Your task to perform on an android device: toggle improve location accuracy Image 0: 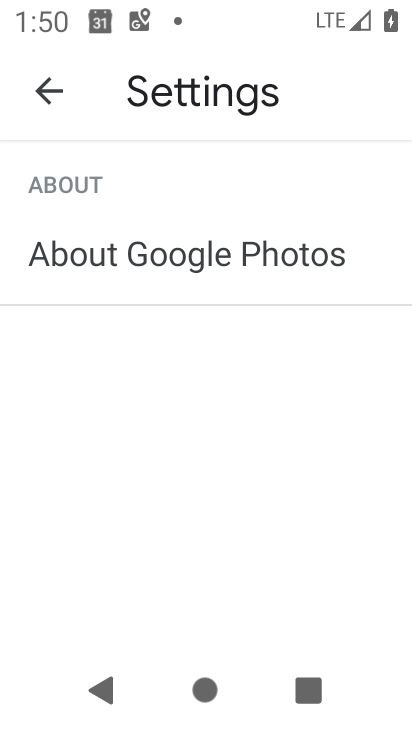
Step 0: press home button
Your task to perform on an android device: toggle improve location accuracy Image 1: 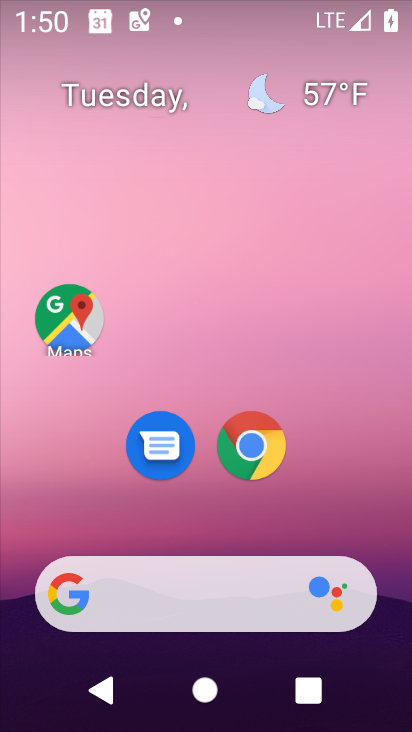
Step 1: drag from (360, 400) to (352, 130)
Your task to perform on an android device: toggle improve location accuracy Image 2: 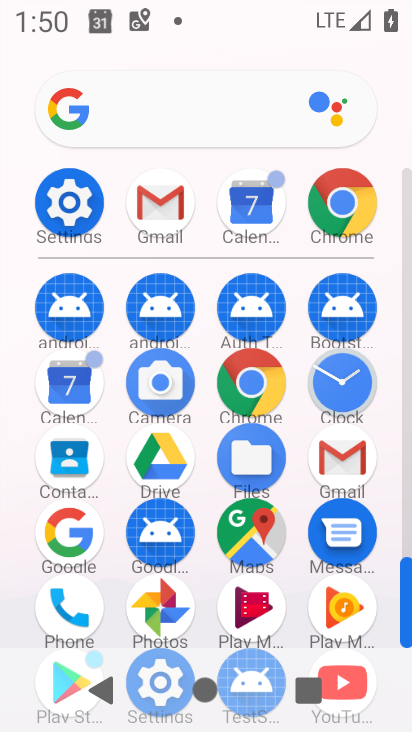
Step 2: click (79, 220)
Your task to perform on an android device: toggle improve location accuracy Image 3: 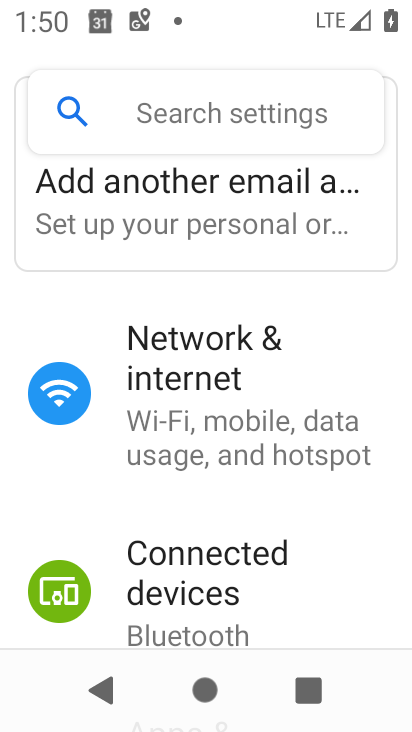
Step 3: drag from (341, 478) to (331, 373)
Your task to perform on an android device: toggle improve location accuracy Image 4: 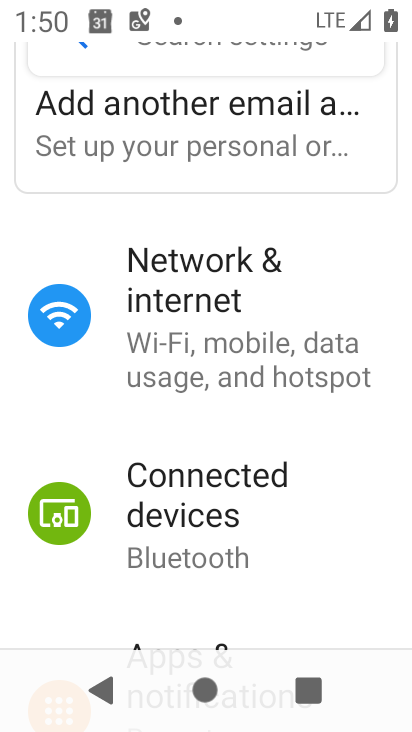
Step 4: drag from (329, 483) to (322, 361)
Your task to perform on an android device: toggle improve location accuracy Image 5: 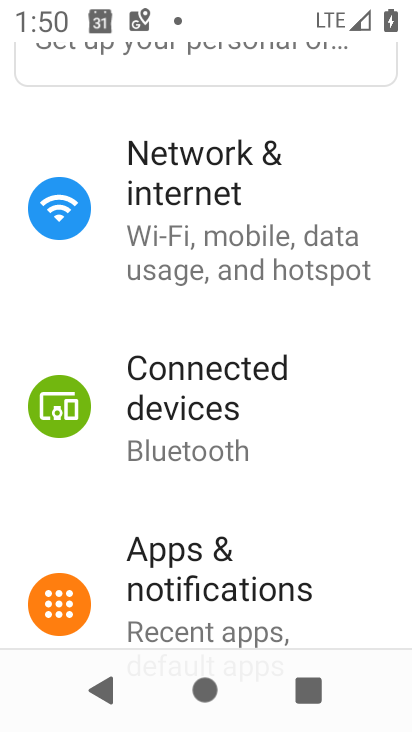
Step 5: drag from (337, 496) to (339, 386)
Your task to perform on an android device: toggle improve location accuracy Image 6: 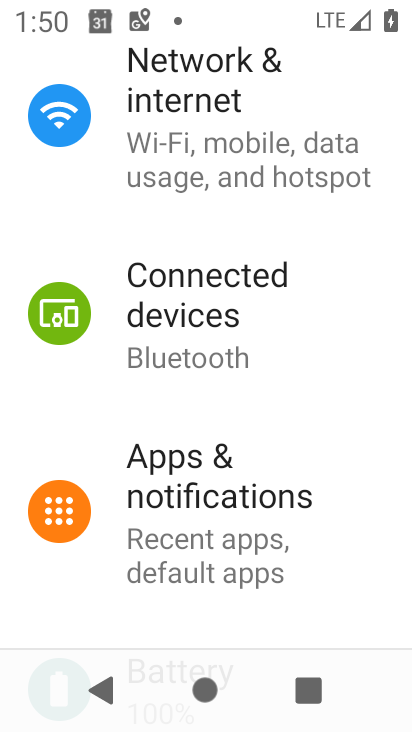
Step 6: drag from (343, 551) to (357, 421)
Your task to perform on an android device: toggle improve location accuracy Image 7: 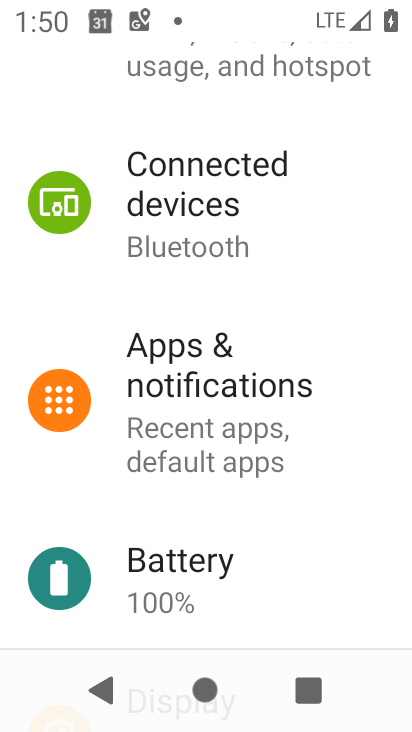
Step 7: drag from (342, 547) to (344, 429)
Your task to perform on an android device: toggle improve location accuracy Image 8: 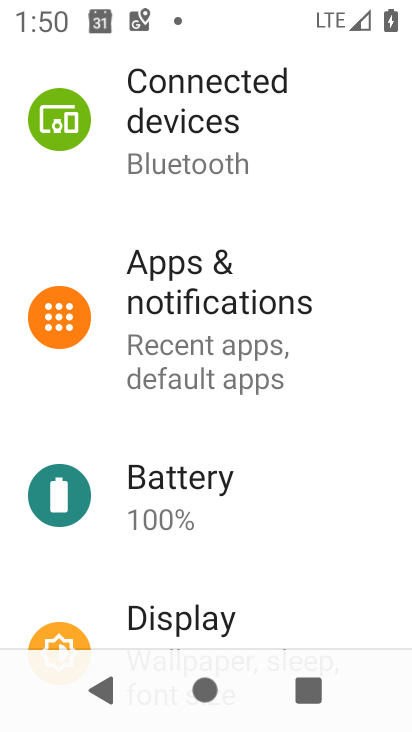
Step 8: drag from (356, 431) to (363, 291)
Your task to perform on an android device: toggle improve location accuracy Image 9: 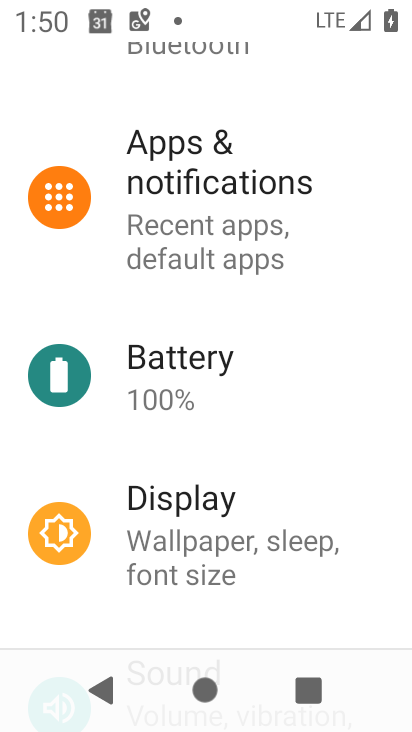
Step 9: drag from (355, 557) to (364, 339)
Your task to perform on an android device: toggle improve location accuracy Image 10: 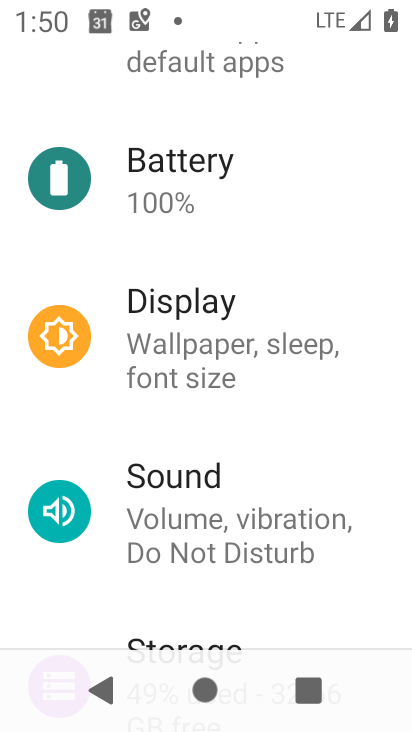
Step 10: drag from (368, 558) to (365, 380)
Your task to perform on an android device: toggle improve location accuracy Image 11: 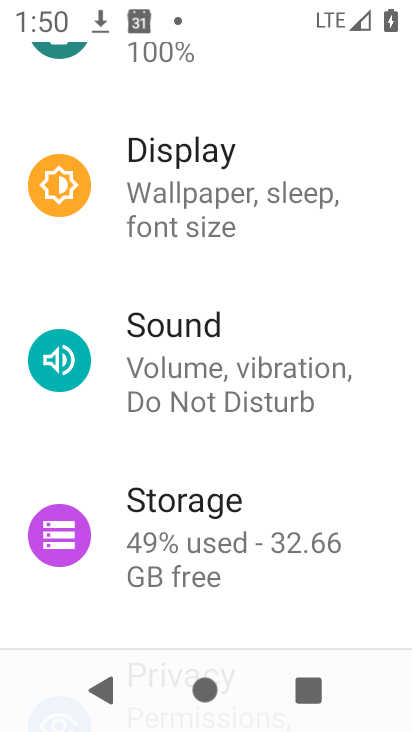
Step 11: drag from (351, 573) to (351, 398)
Your task to perform on an android device: toggle improve location accuracy Image 12: 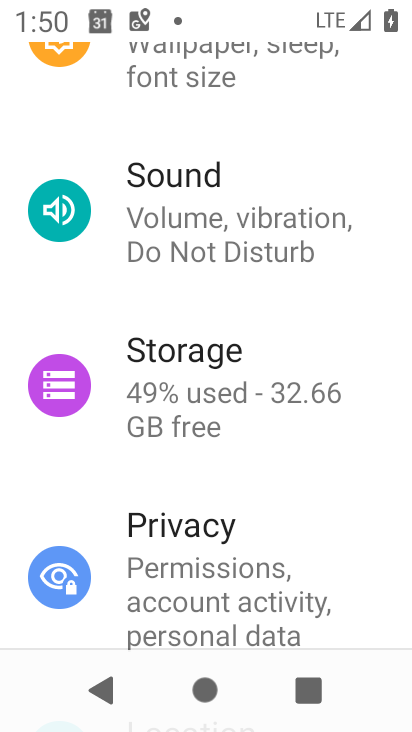
Step 12: drag from (363, 583) to (345, 450)
Your task to perform on an android device: toggle improve location accuracy Image 13: 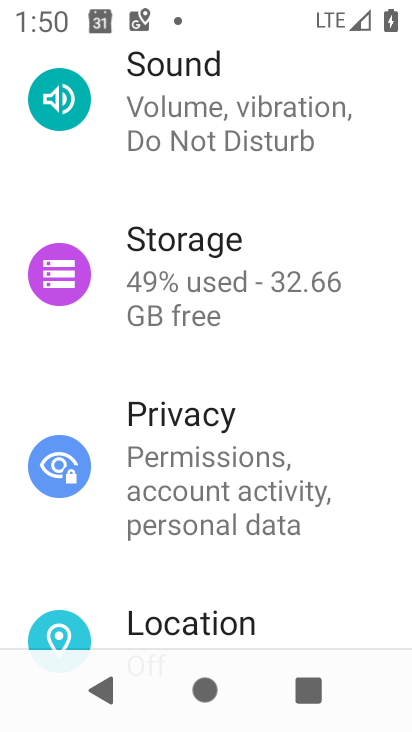
Step 13: drag from (362, 567) to (348, 359)
Your task to perform on an android device: toggle improve location accuracy Image 14: 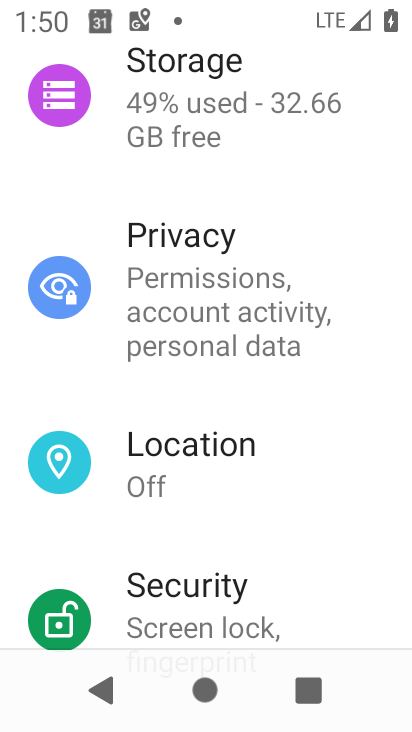
Step 14: drag from (334, 494) to (343, 325)
Your task to perform on an android device: toggle improve location accuracy Image 15: 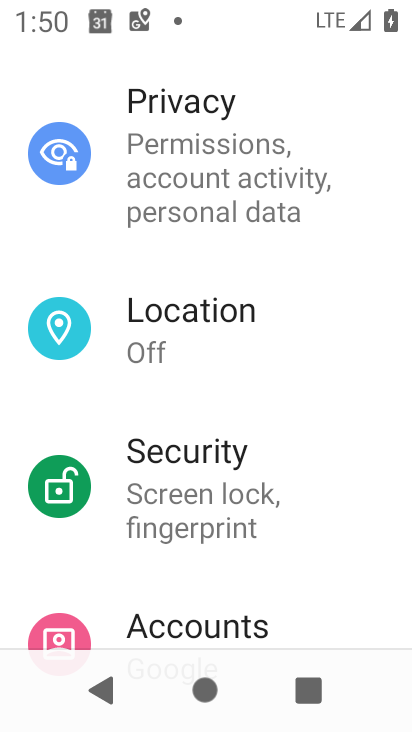
Step 15: click (220, 333)
Your task to perform on an android device: toggle improve location accuracy Image 16: 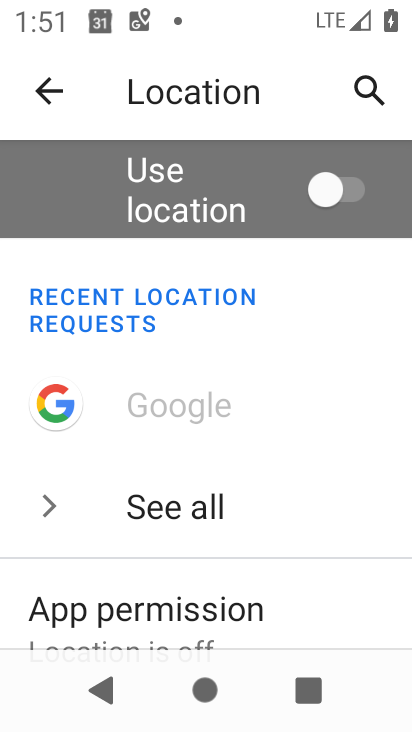
Step 16: drag from (333, 538) to (334, 406)
Your task to perform on an android device: toggle improve location accuracy Image 17: 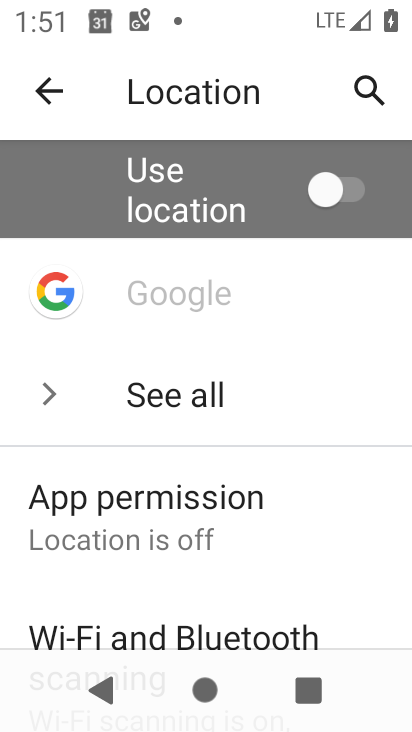
Step 17: drag from (333, 554) to (342, 426)
Your task to perform on an android device: toggle improve location accuracy Image 18: 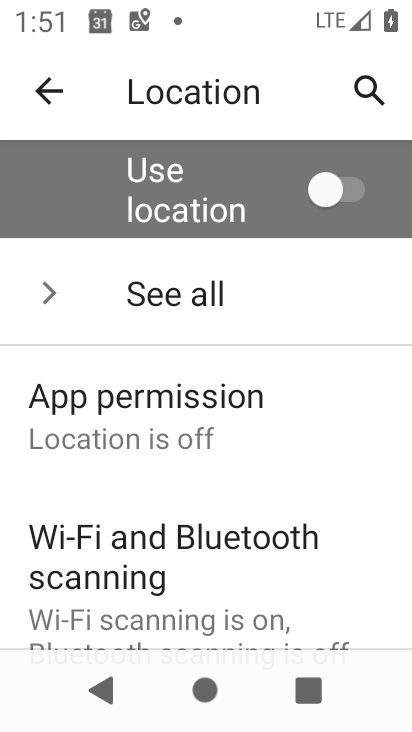
Step 18: drag from (351, 546) to (353, 349)
Your task to perform on an android device: toggle improve location accuracy Image 19: 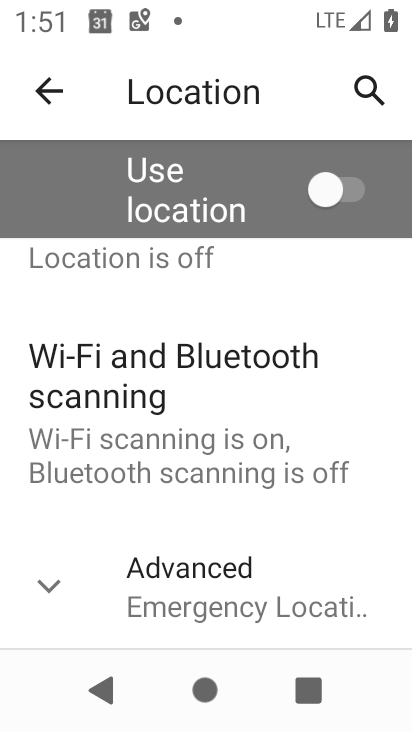
Step 19: click (298, 590)
Your task to perform on an android device: toggle improve location accuracy Image 20: 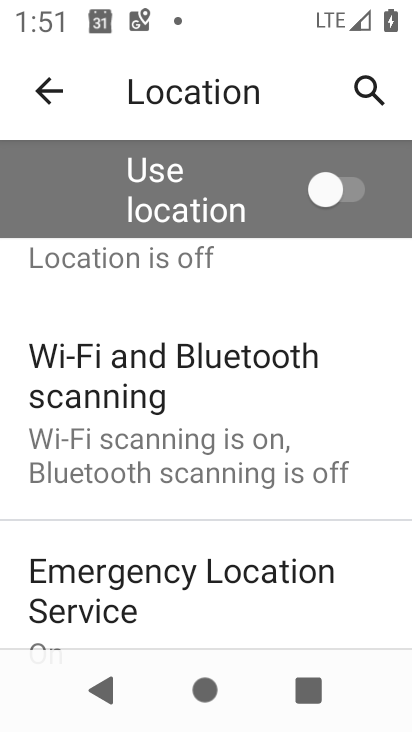
Step 20: drag from (313, 584) to (326, 454)
Your task to perform on an android device: toggle improve location accuracy Image 21: 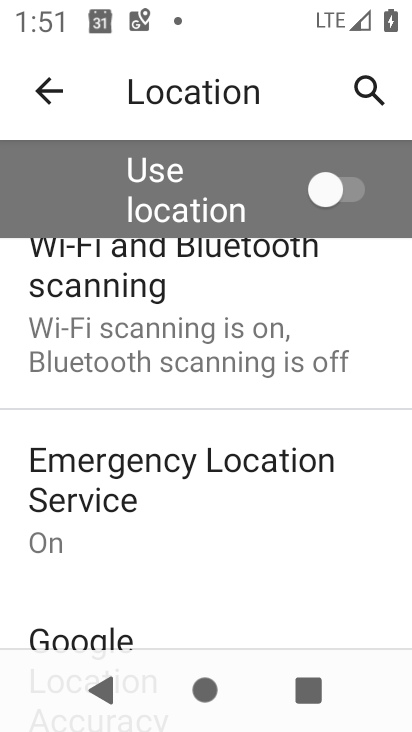
Step 21: drag from (342, 553) to (374, 323)
Your task to perform on an android device: toggle improve location accuracy Image 22: 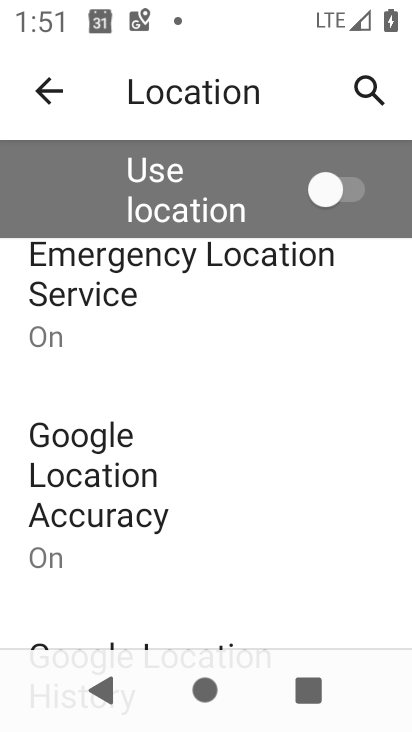
Step 22: drag from (296, 519) to (294, 329)
Your task to perform on an android device: toggle improve location accuracy Image 23: 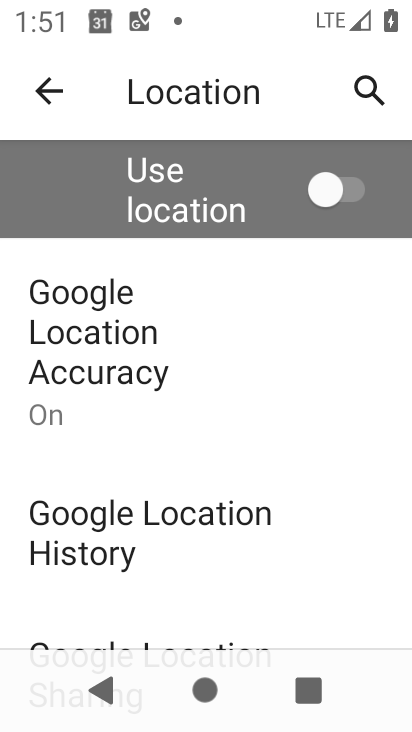
Step 23: click (149, 351)
Your task to perform on an android device: toggle improve location accuracy Image 24: 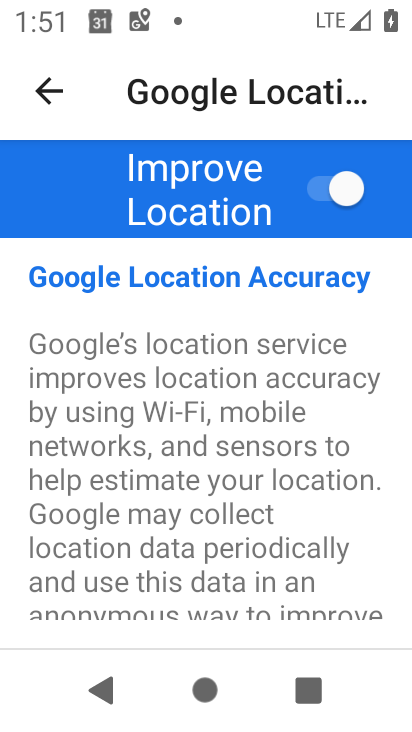
Step 24: click (348, 182)
Your task to perform on an android device: toggle improve location accuracy Image 25: 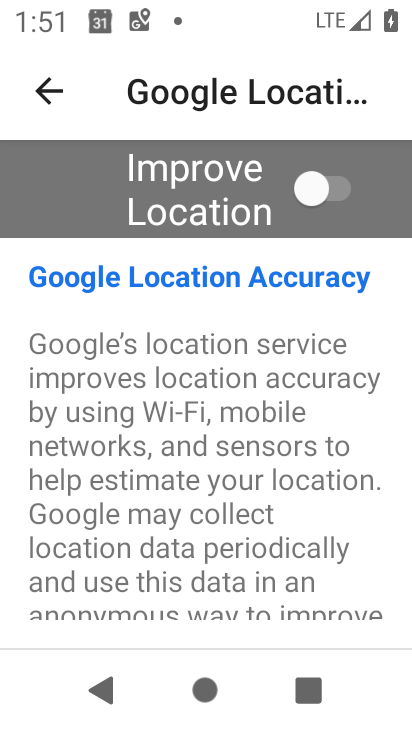
Step 25: task complete